Your task to perform on an android device: check battery use Image 0: 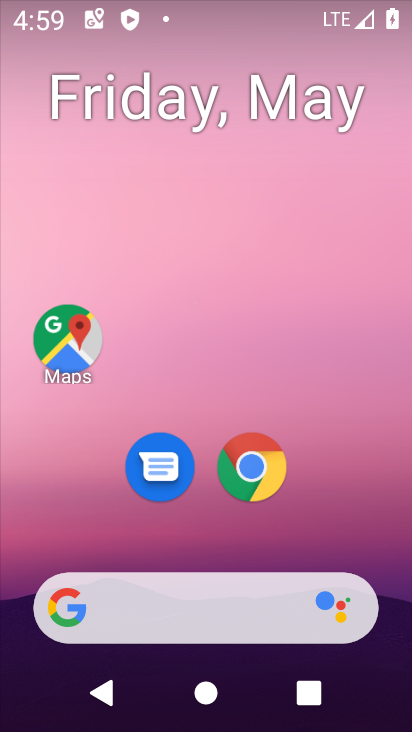
Step 0: drag from (303, 515) to (223, 112)
Your task to perform on an android device: check battery use Image 1: 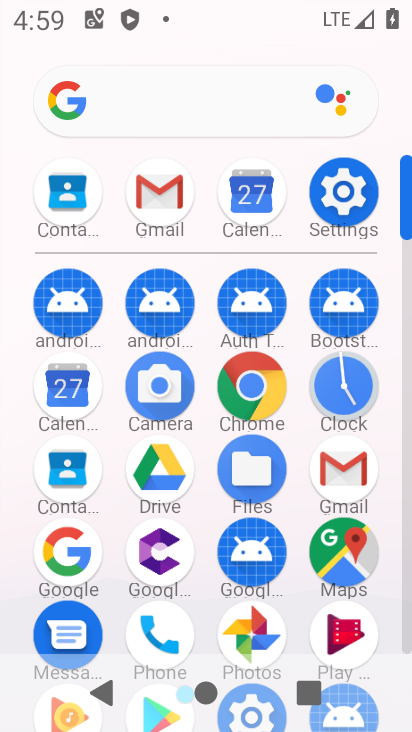
Step 1: click (335, 199)
Your task to perform on an android device: check battery use Image 2: 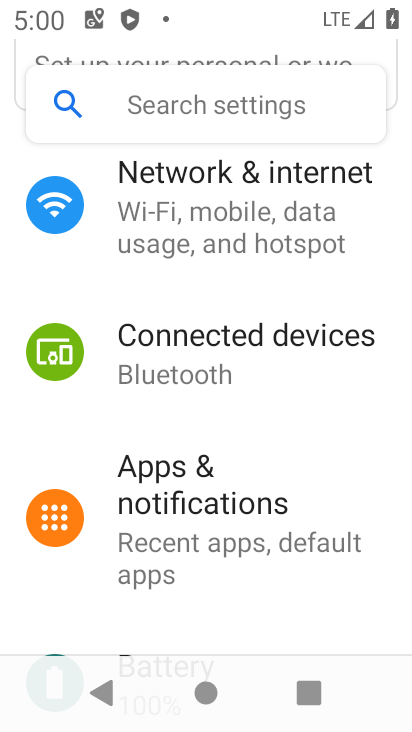
Step 2: click (227, 200)
Your task to perform on an android device: check battery use Image 3: 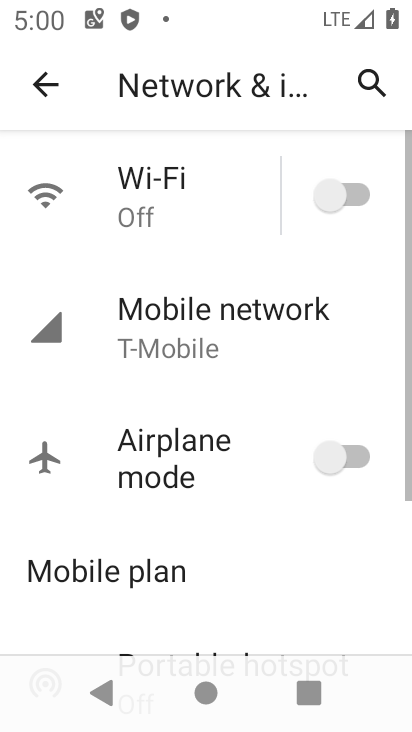
Step 3: press back button
Your task to perform on an android device: check battery use Image 4: 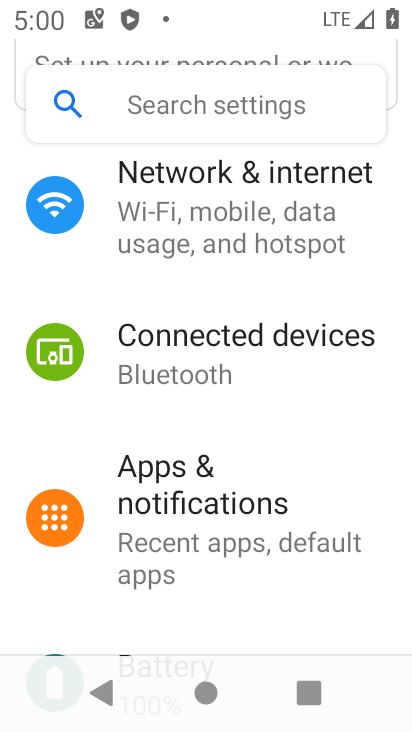
Step 4: click (145, 634)
Your task to perform on an android device: check battery use Image 5: 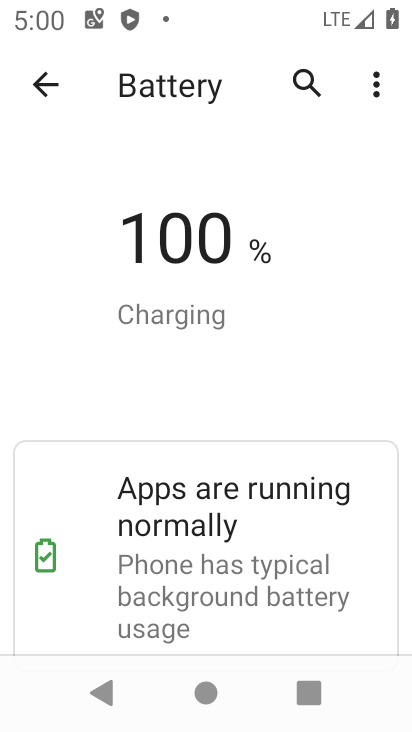
Step 5: task complete